Your task to perform on an android device: Open battery settings Image 0: 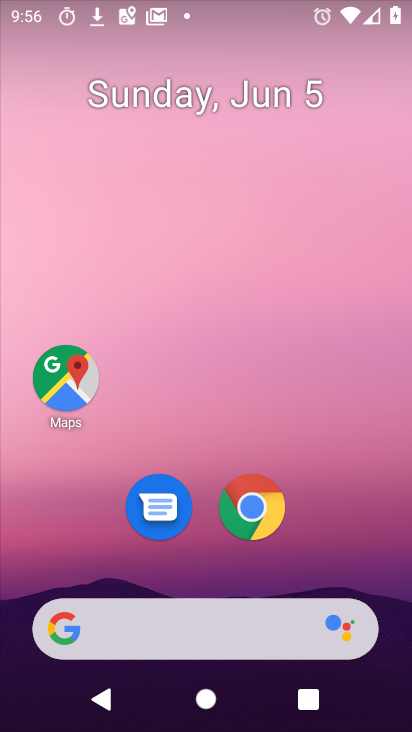
Step 0: drag from (264, 669) to (221, 212)
Your task to perform on an android device: Open battery settings Image 1: 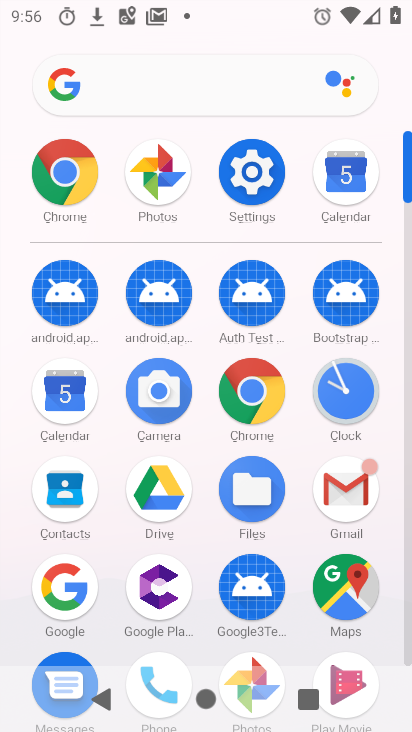
Step 1: click (261, 154)
Your task to perform on an android device: Open battery settings Image 2: 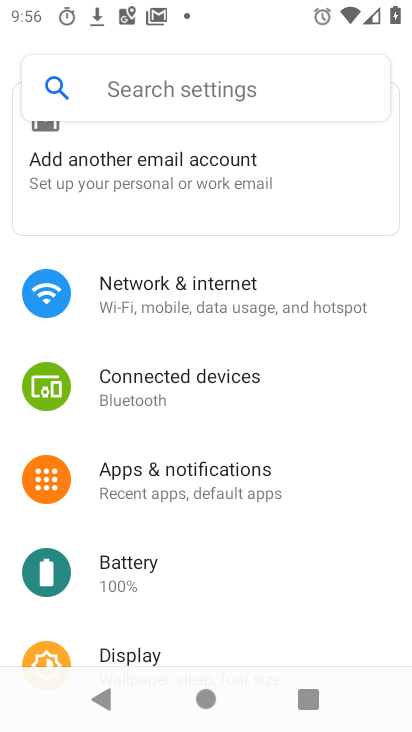
Step 2: drag from (178, 564) to (170, 444)
Your task to perform on an android device: Open battery settings Image 3: 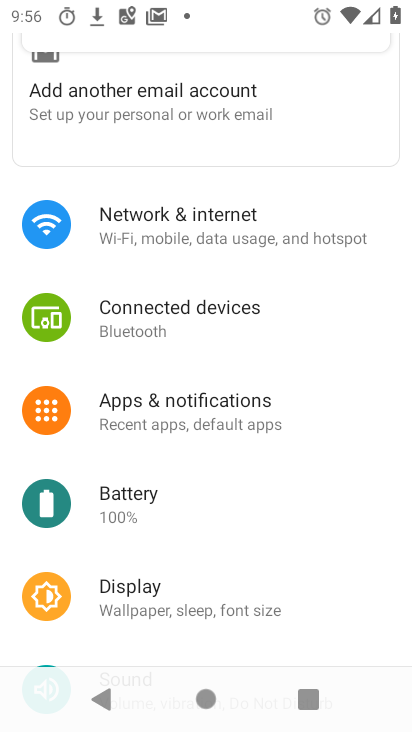
Step 3: click (148, 503)
Your task to perform on an android device: Open battery settings Image 4: 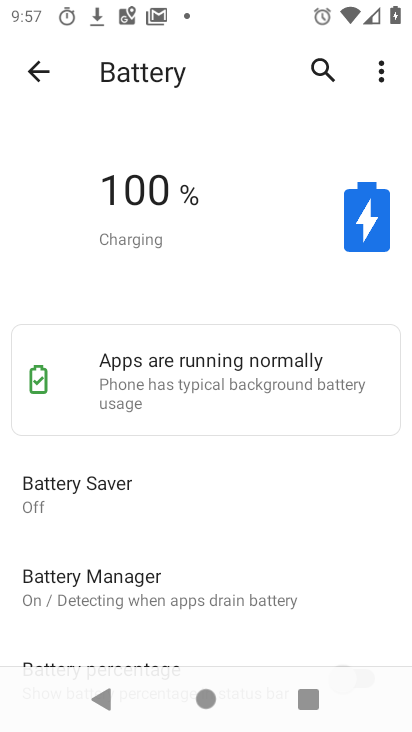
Step 4: task complete